Your task to perform on an android device: Open network settings Image 0: 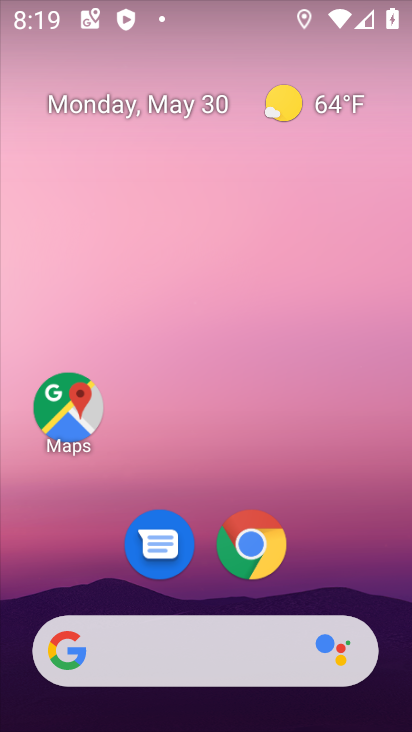
Step 0: drag from (222, 611) to (111, 106)
Your task to perform on an android device: Open network settings Image 1: 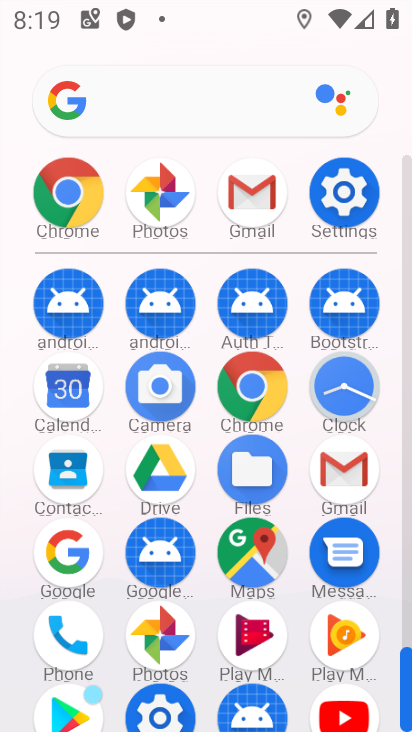
Step 1: click (138, 703)
Your task to perform on an android device: Open network settings Image 2: 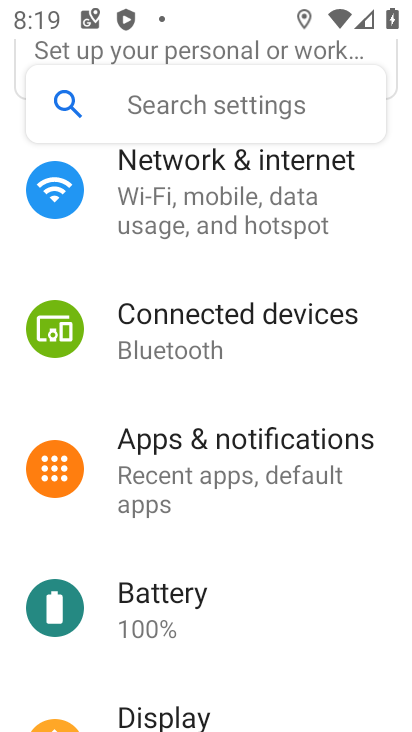
Step 2: click (178, 212)
Your task to perform on an android device: Open network settings Image 3: 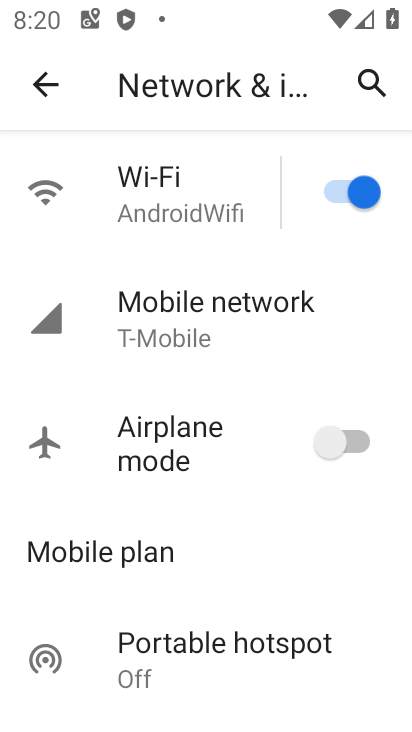
Step 3: click (214, 299)
Your task to perform on an android device: Open network settings Image 4: 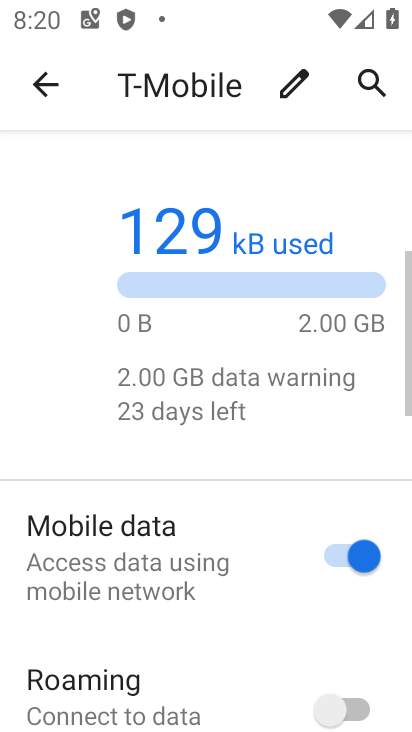
Step 4: task complete